Your task to perform on an android device: add a contact in the contacts app Image 0: 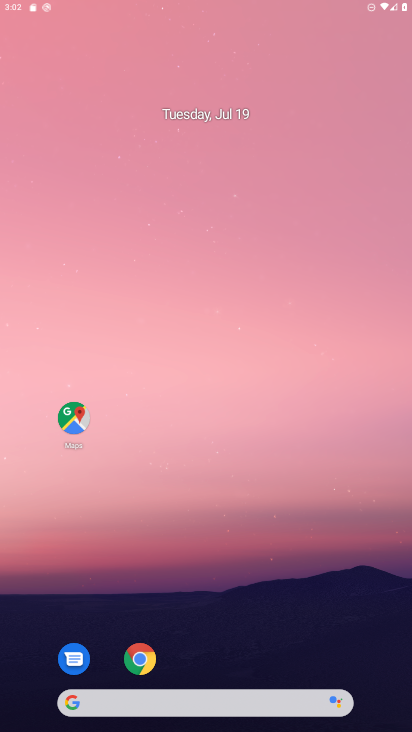
Step 0: click (148, 652)
Your task to perform on an android device: add a contact in the contacts app Image 1: 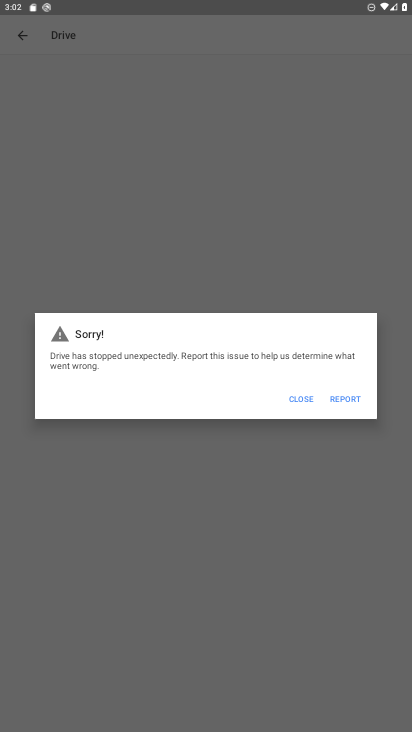
Step 1: press home button
Your task to perform on an android device: add a contact in the contacts app Image 2: 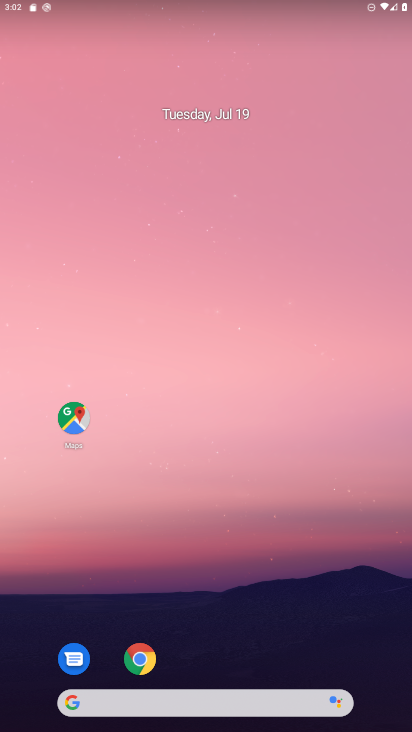
Step 2: drag from (243, 649) to (344, 7)
Your task to perform on an android device: add a contact in the contacts app Image 3: 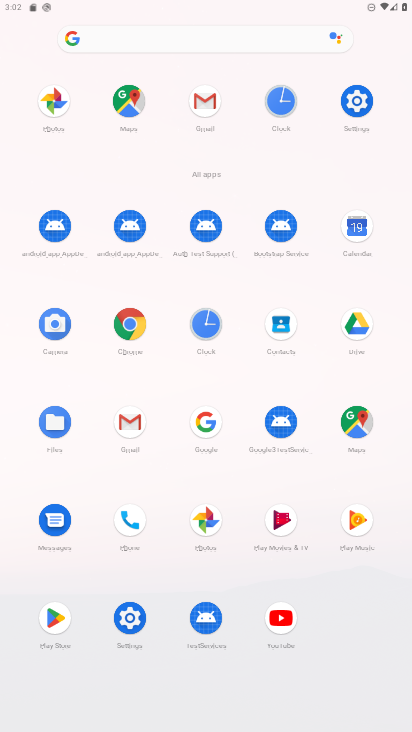
Step 3: click (279, 326)
Your task to perform on an android device: add a contact in the contacts app Image 4: 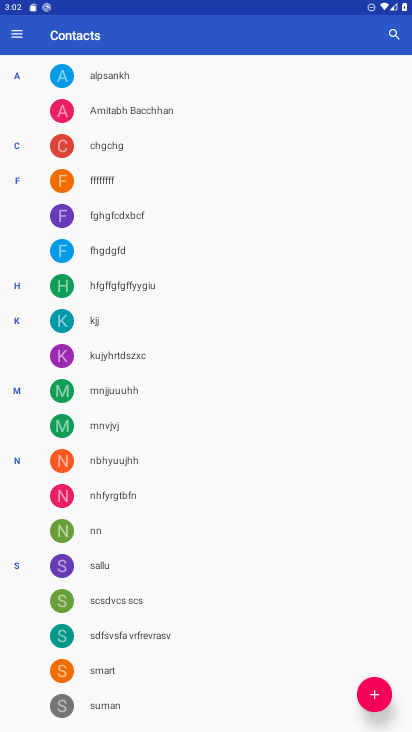
Step 4: click (371, 687)
Your task to perform on an android device: add a contact in the contacts app Image 5: 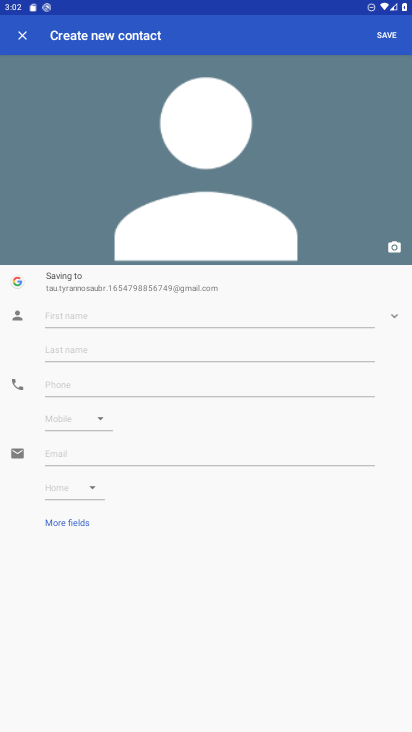
Step 5: click (75, 321)
Your task to perform on an android device: add a contact in the contacts app Image 6: 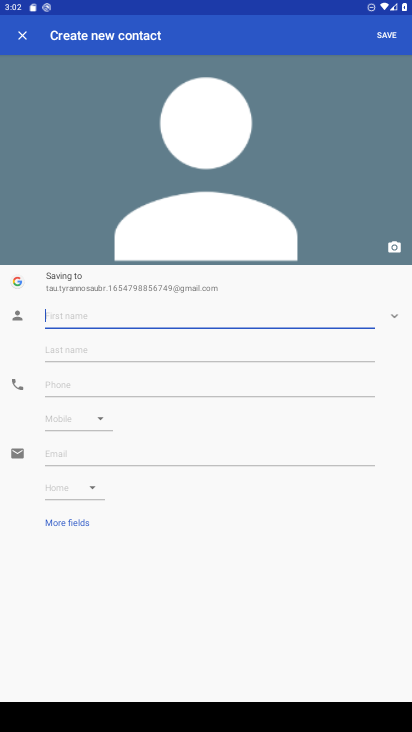
Step 6: type "tgbhu"
Your task to perform on an android device: add a contact in the contacts app Image 7: 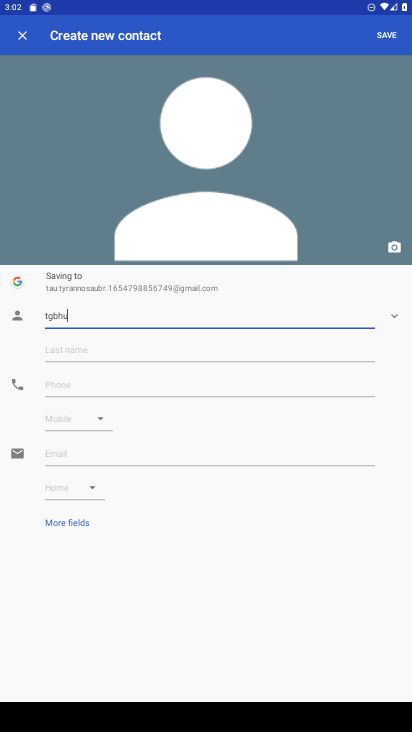
Step 7: click (95, 387)
Your task to perform on an android device: add a contact in the contacts app Image 8: 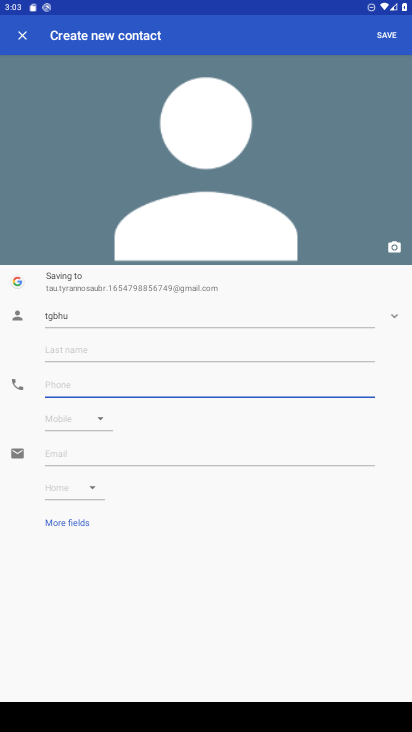
Step 8: type "2134567899"
Your task to perform on an android device: add a contact in the contacts app Image 9: 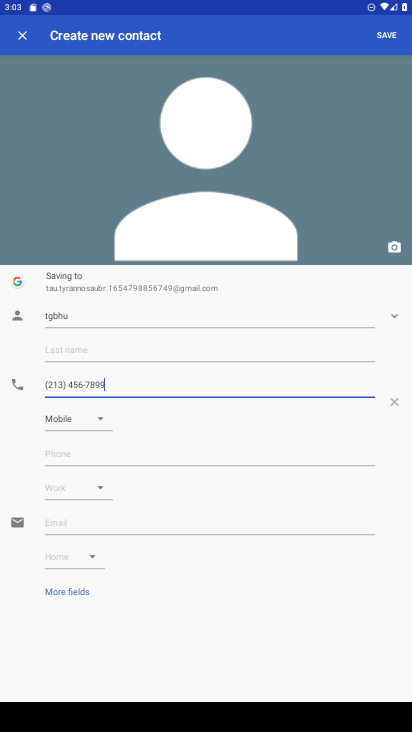
Step 9: click (381, 30)
Your task to perform on an android device: add a contact in the contacts app Image 10: 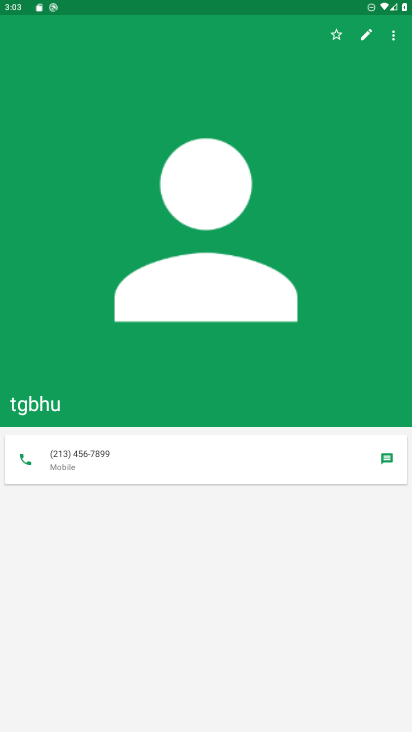
Step 10: task complete